Your task to perform on an android device: delete browsing data in the chrome app Image 0: 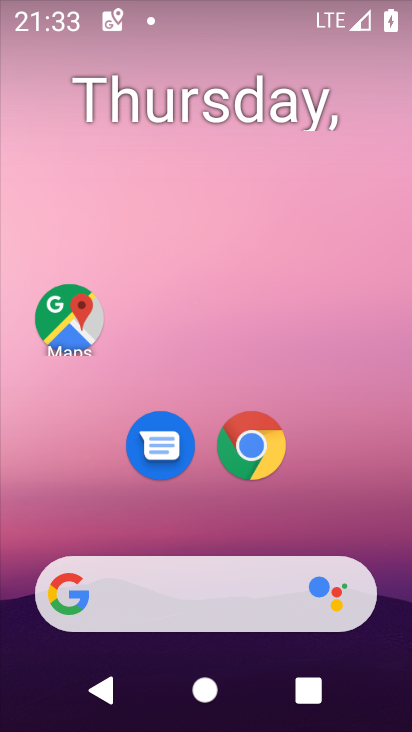
Step 0: drag from (197, 547) to (188, 0)
Your task to perform on an android device: delete browsing data in the chrome app Image 1: 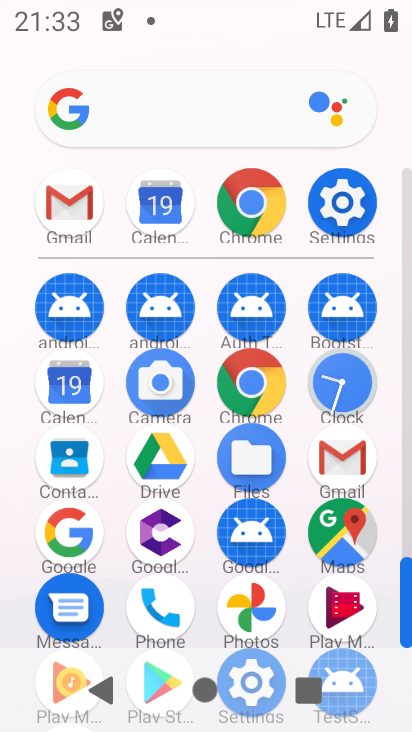
Step 1: click (258, 194)
Your task to perform on an android device: delete browsing data in the chrome app Image 2: 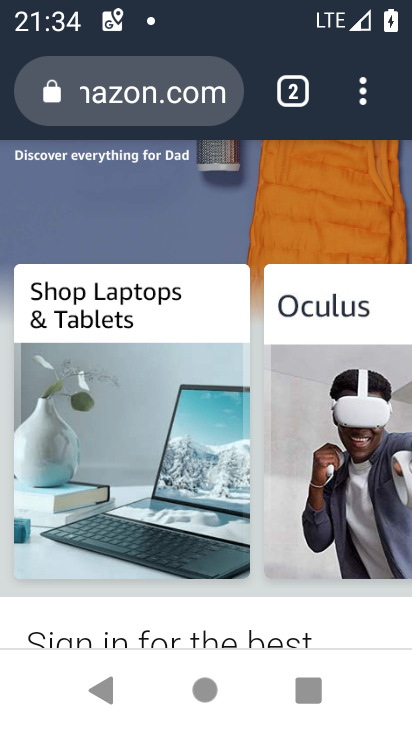
Step 2: drag from (251, 614) to (271, 176)
Your task to perform on an android device: delete browsing data in the chrome app Image 3: 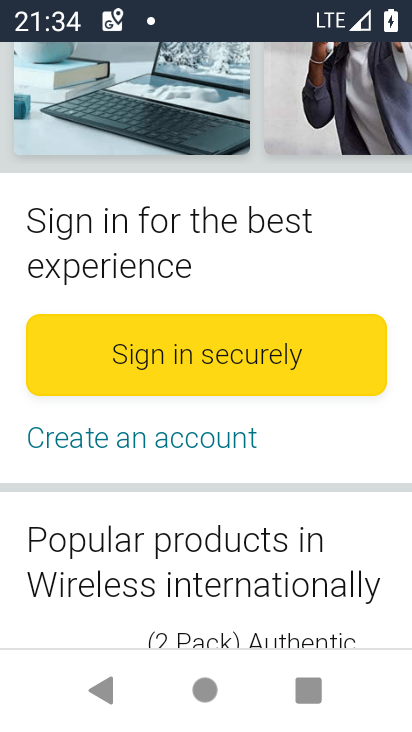
Step 3: drag from (299, 206) to (310, 730)
Your task to perform on an android device: delete browsing data in the chrome app Image 4: 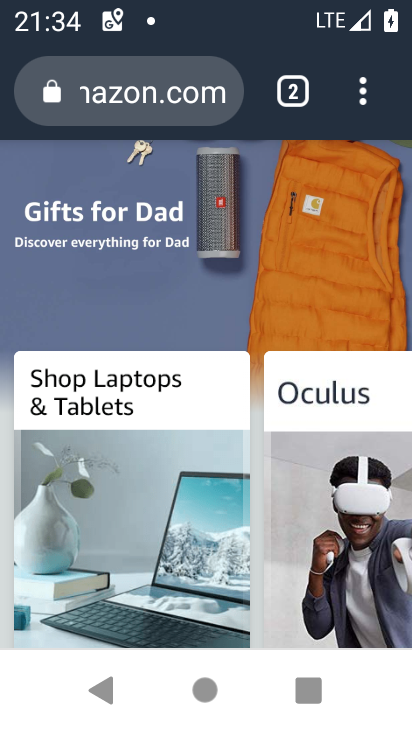
Step 4: click (368, 94)
Your task to perform on an android device: delete browsing data in the chrome app Image 5: 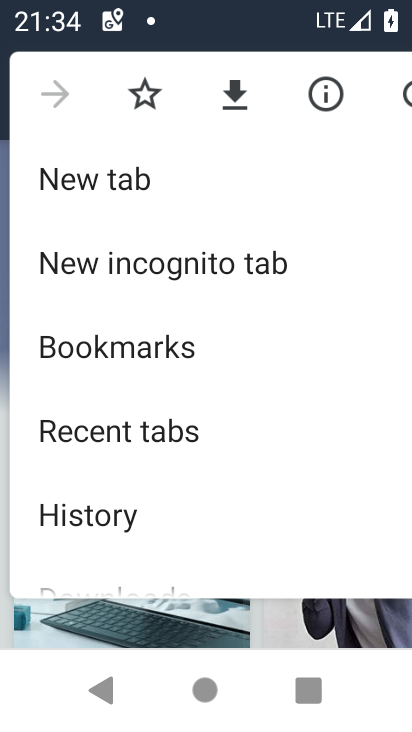
Step 5: click (122, 510)
Your task to perform on an android device: delete browsing data in the chrome app Image 6: 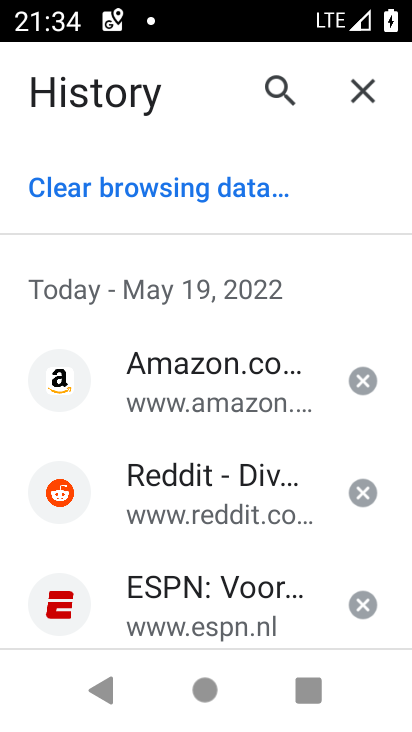
Step 6: drag from (166, 448) to (312, 601)
Your task to perform on an android device: delete browsing data in the chrome app Image 7: 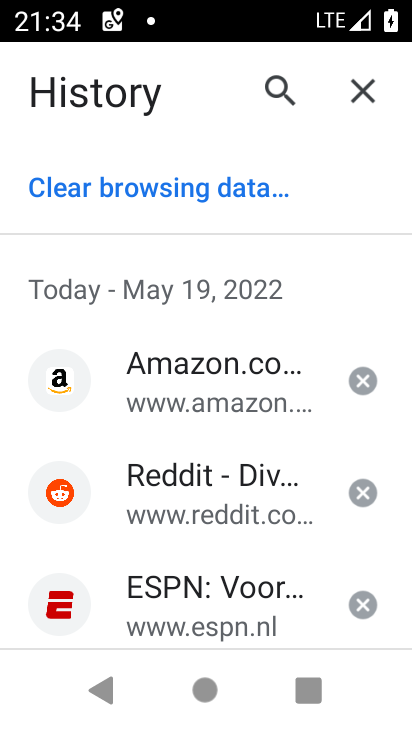
Step 7: click (115, 196)
Your task to perform on an android device: delete browsing data in the chrome app Image 8: 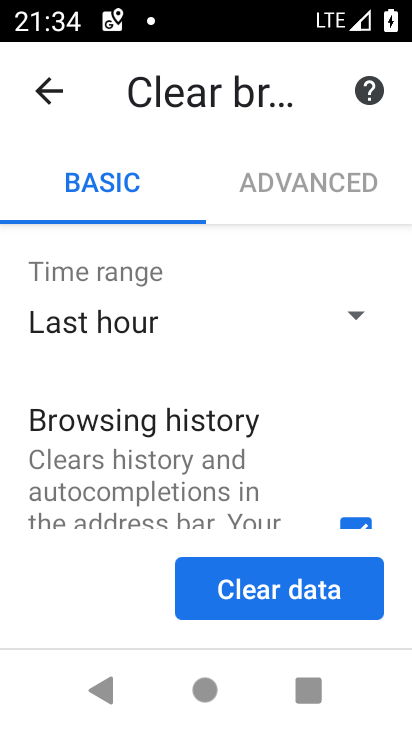
Step 8: click (305, 576)
Your task to perform on an android device: delete browsing data in the chrome app Image 9: 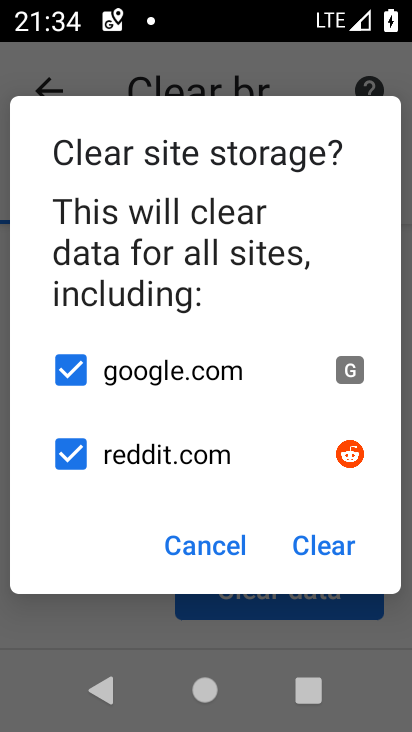
Step 9: click (348, 549)
Your task to perform on an android device: delete browsing data in the chrome app Image 10: 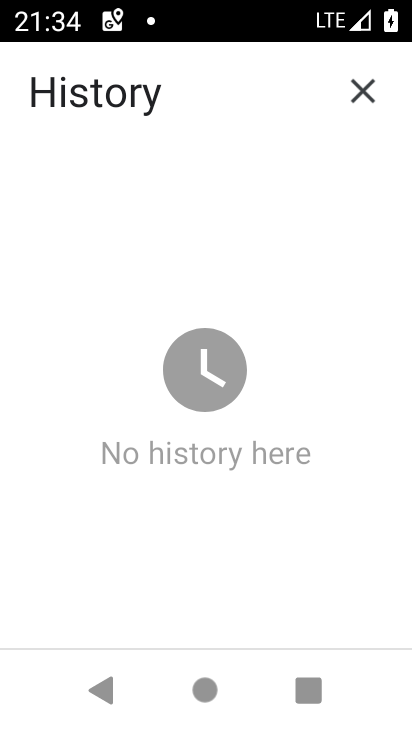
Step 10: task complete